Your task to perform on an android device: check the backup settings in the google photos Image 0: 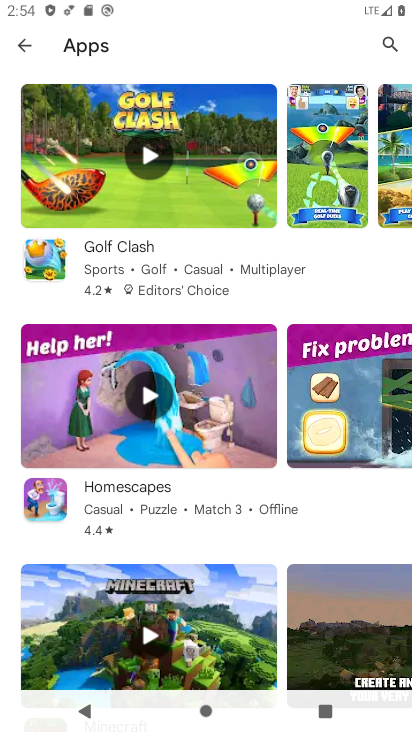
Step 0: press home button
Your task to perform on an android device: check the backup settings in the google photos Image 1: 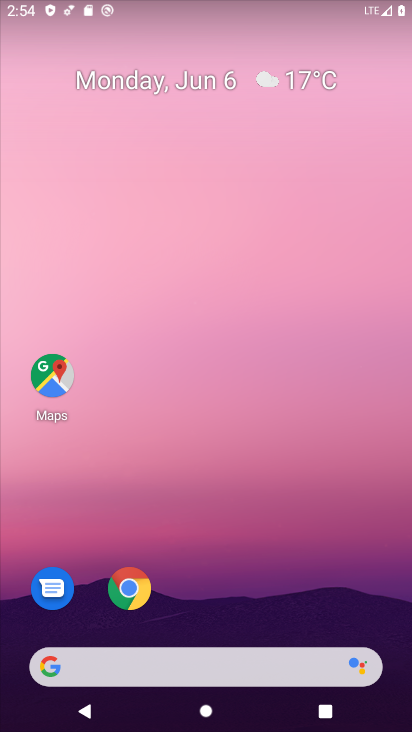
Step 1: drag from (247, 650) to (306, 175)
Your task to perform on an android device: check the backup settings in the google photos Image 2: 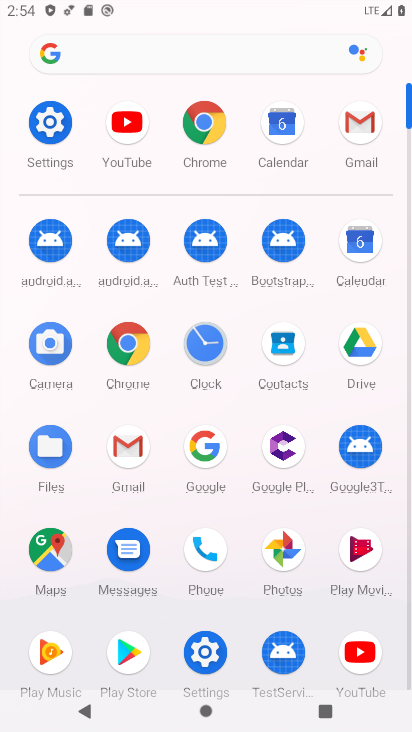
Step 2: click (294, 543)
Your task to perform on an android device: check the backup settings in the google photos Image 3: 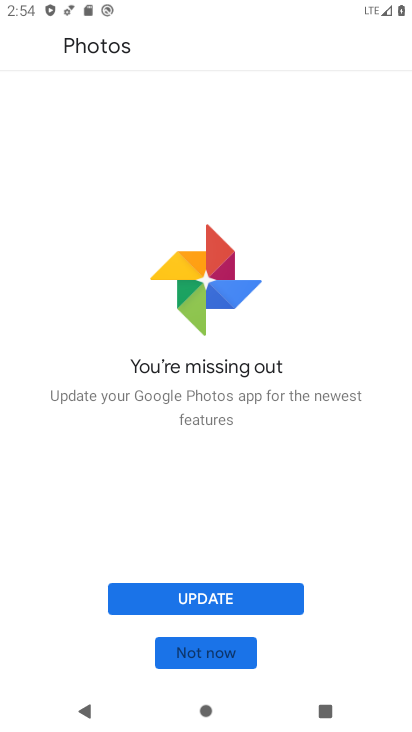
Step 3: click (190, 647)
Your task to perform on an android device: check the backup settings in the google photos Image 4: 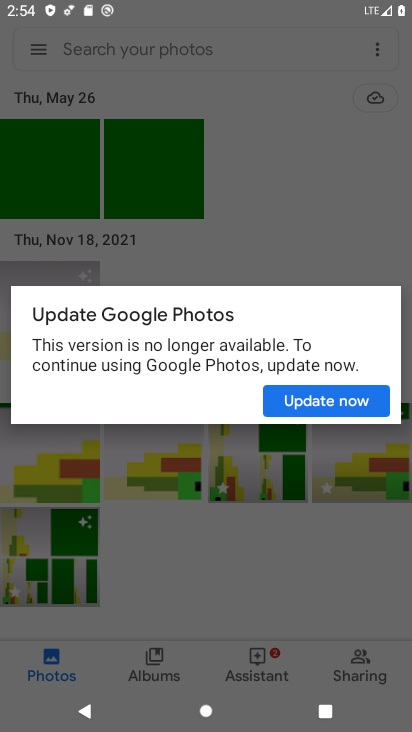
Step 4: click (338, 399)
Your task to perform on an android device: check the backup settings in the google photos Image 5: 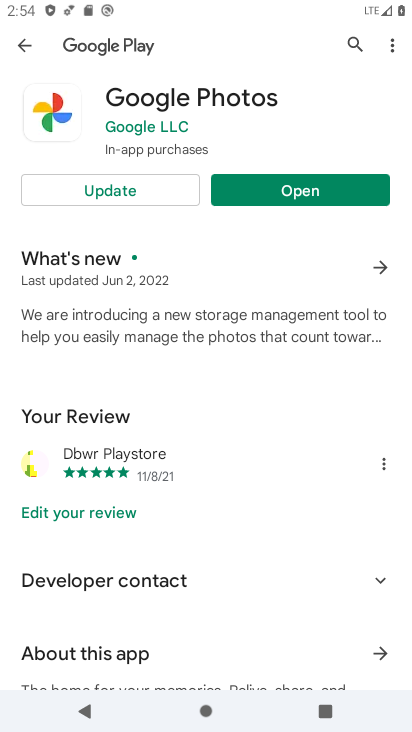
Step 5: click (137, 186)
Your task to perform on an android device: check the backup settings in the google photos Image 6: 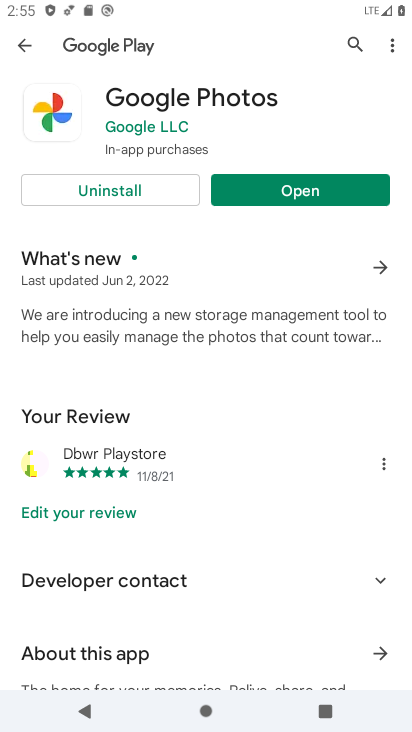
Step 6: click (253, 193)
Your task to perform on an android device: check the backup settings in the google photos Image 7: 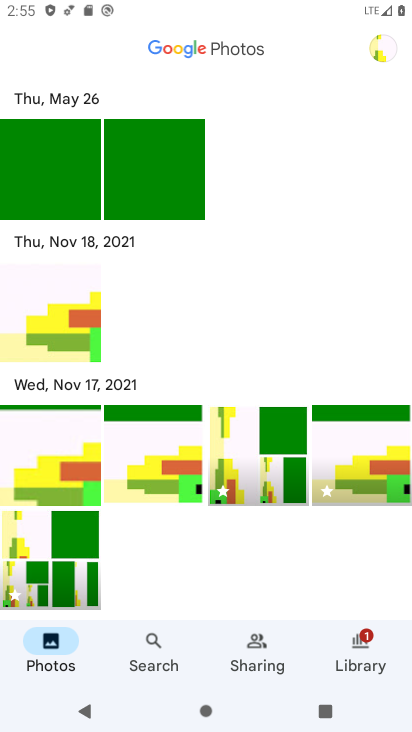
Step 7: click (384, 47)
Your task to perform on an android device: check the backup settings in the google photos Image 8: 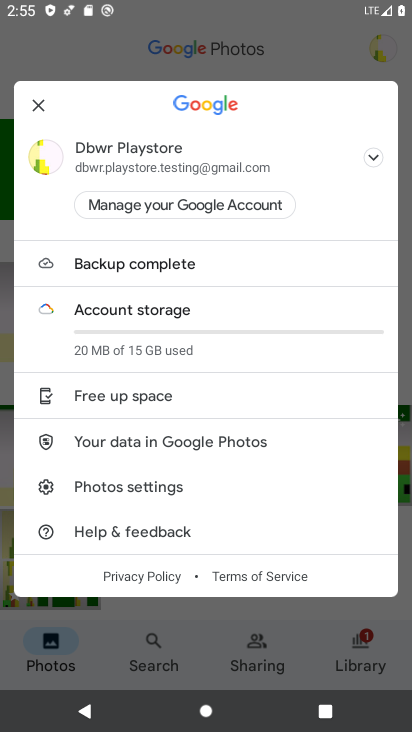
Step 8: click (115, 491)
Your task to perform on an android device: check the backup settings in the google photos Image 9: 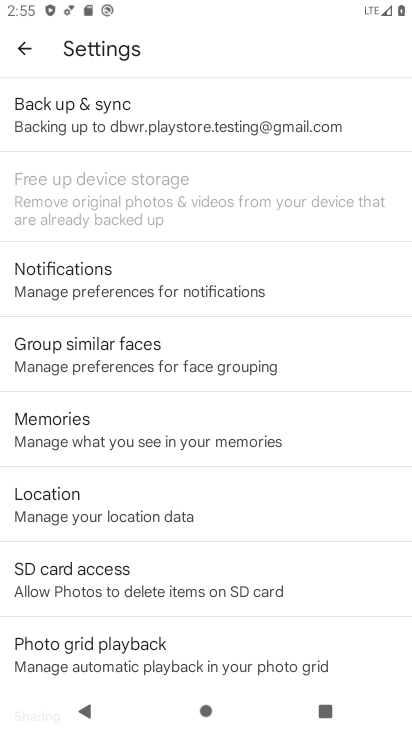
Step 9: click (89, 108)
Your task to perform on an android device: check the backup settings in the google photos Image 10: 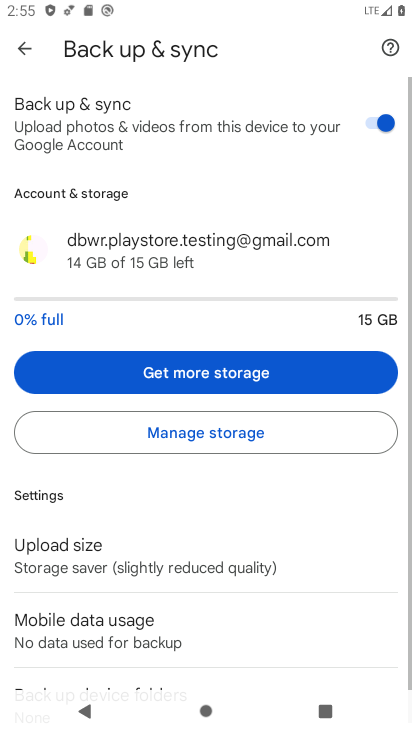
Step 10: task complete